Your task to perform on an android device: create a new album in the google photos Image 0: 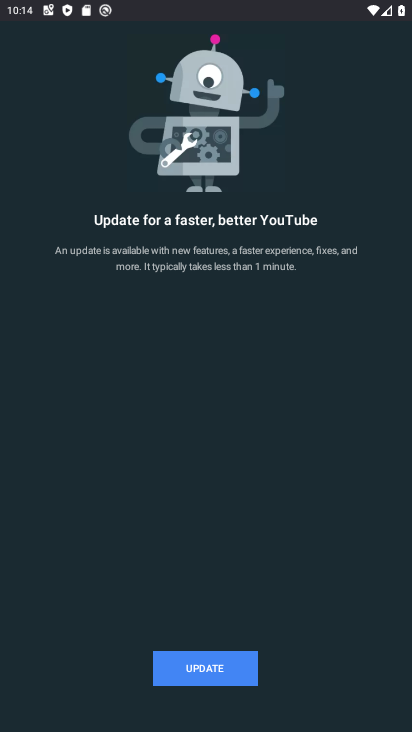
Step 0: press home button
Your task to perform on an android device: create a new album in the google photos Image 1: 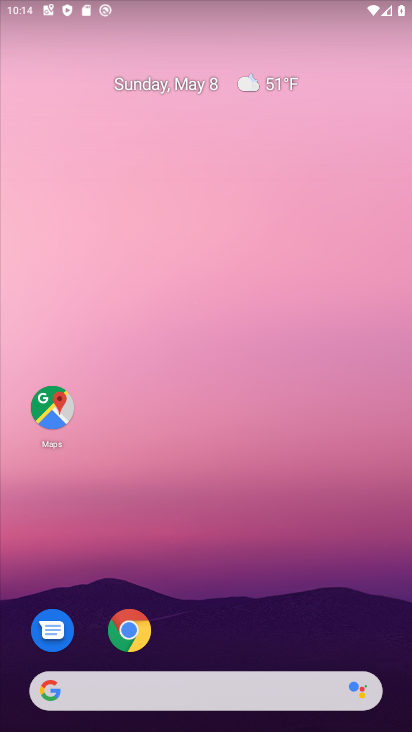
Step 1: drag from (378, 643) to (218, 61)
Your task to perform on an android device: create a new album in the google photos Image 2: 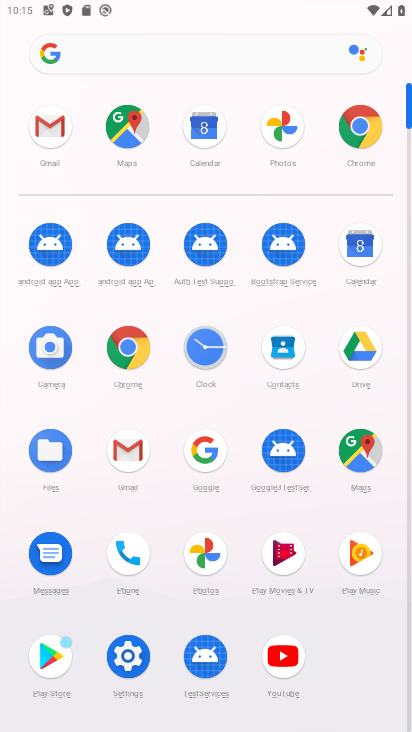
Step 2: click (211, 568)
Your task to perform on an android device: create a new album in the google photos Image 3: 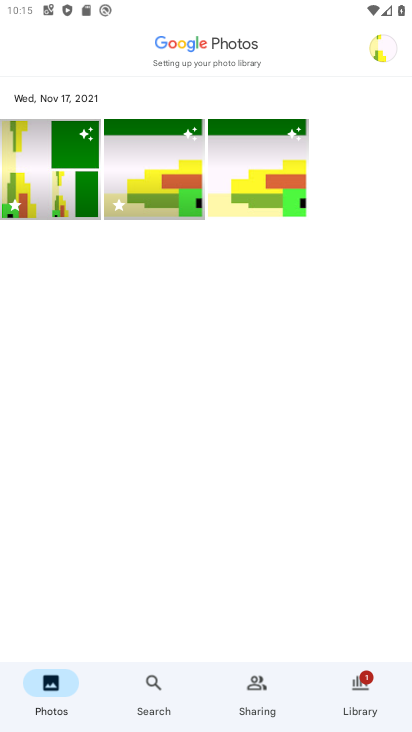
Step 3: click (15, 167)
Your task to perform on an android device: create a new album in the google photos Image 4: 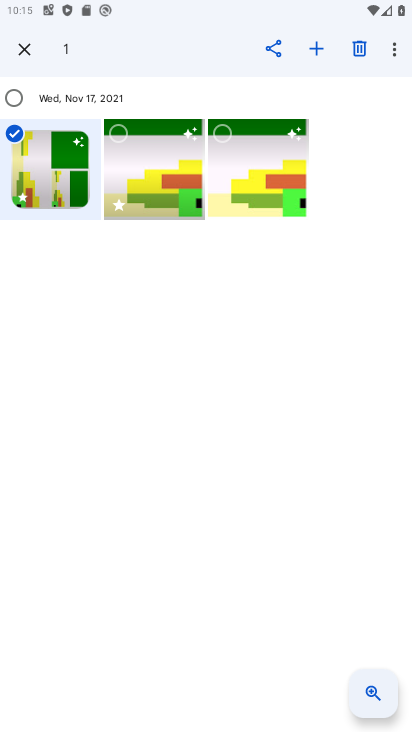
Step 4: click (306, 37)
Your task to perform on an android device: create a new album in the google photos Image 5: 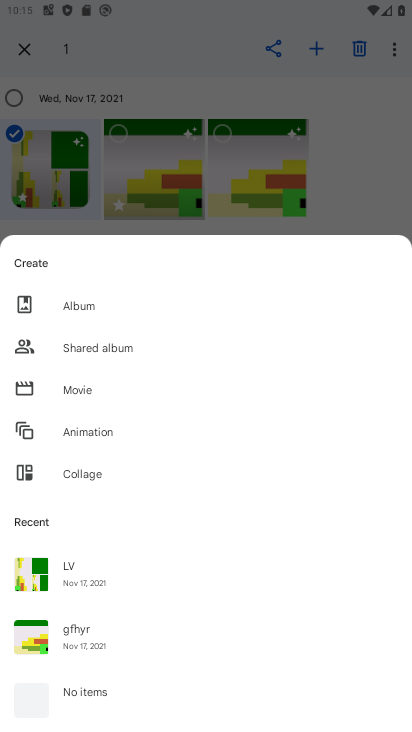
Step 5: click (137, 305)
Your task to perform on an android device: create a new album in the google photos Image 6: 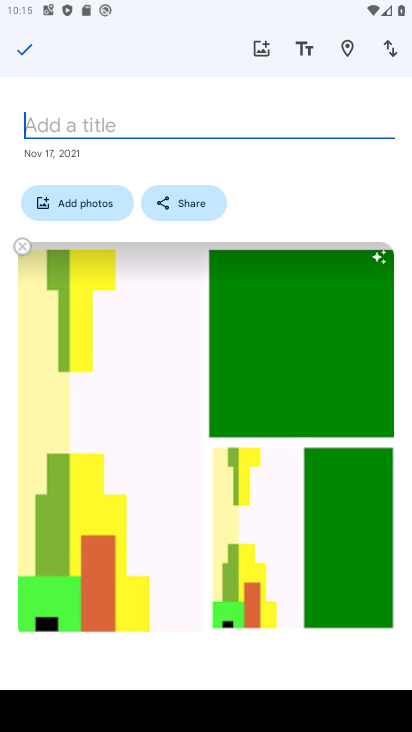
Step 6: type "KR"
Your task to perform on an android device: create a new album in the google photos Image 7: 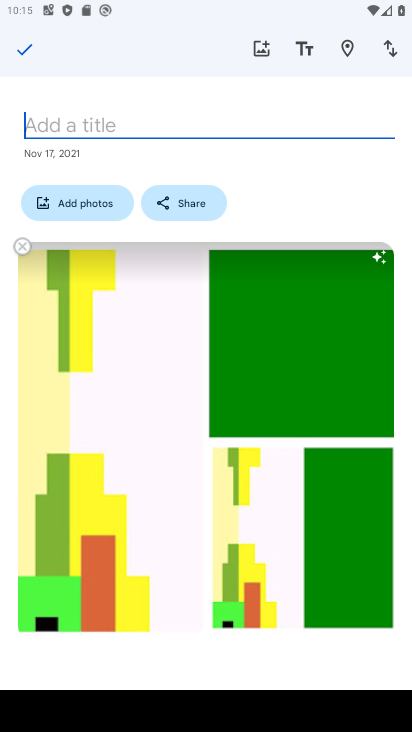
Step 7: click (28, 44)
Your task to perform on an android device: create a new album in the google photos Image 8: 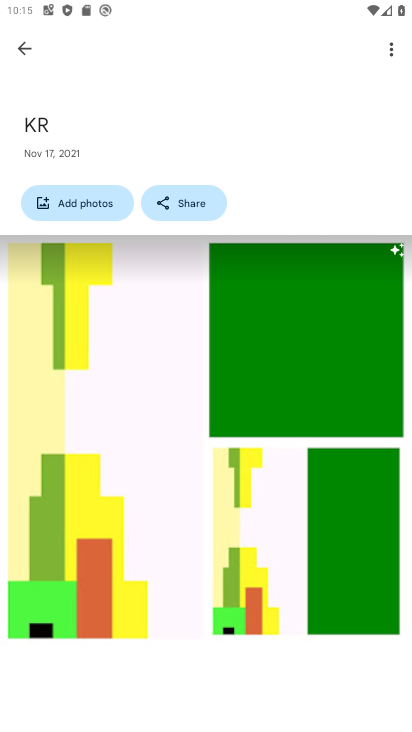
Step 8: task complete